Your task to perform on an android device: Show me the alarms in the clock app Image 0: 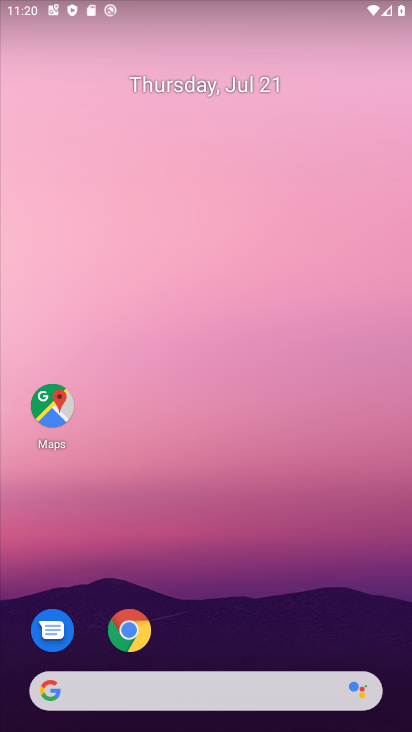
Step 0: press home button
Your task to perform on an android device: Show me the alarms in the clock app Image 1: 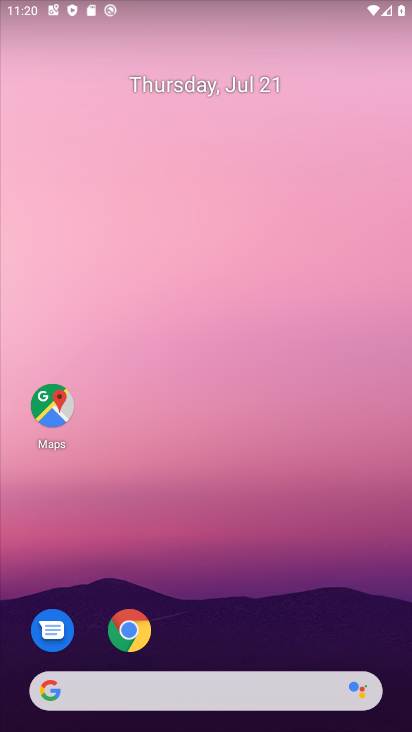
Step 1: drag from (197, 666) to (175, 146)
Your task to perform on an android device: Show me the alarms in the clock app Image 2: 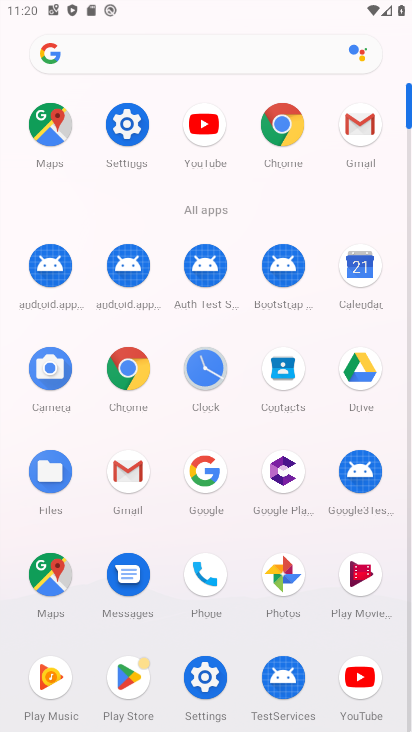
Step 2: click (197, 372)
Your task to perform on an android device: Show me the alarms in the clock app Image 3: 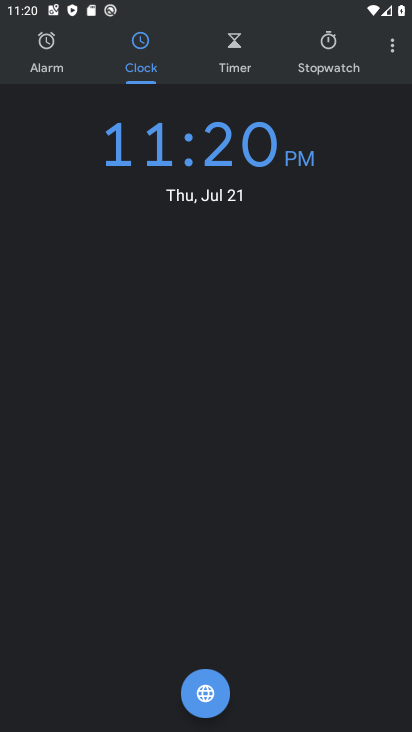
Step 3: click (392, 55)
Your task to perform on an android device: Show me the alarms in the clock app Image 4: 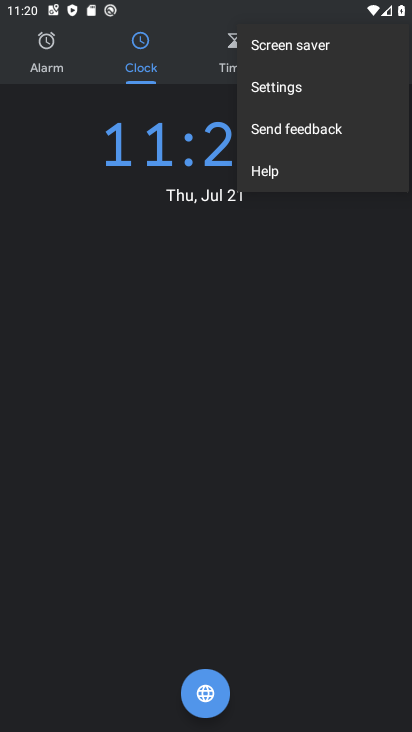
Step 4: click (333, 416)
Your task to perform on an android device: Show me the alarms in the clock app Image 5: 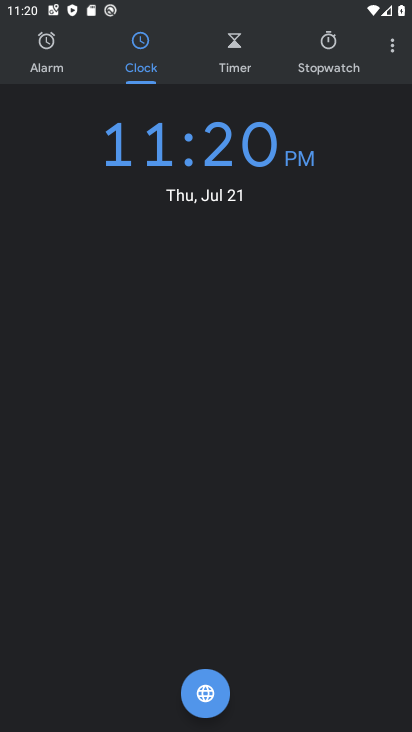
Step 5: click (51, 54)
Your task to perform on an android device: Show me the alarms in the clock app Image 6: 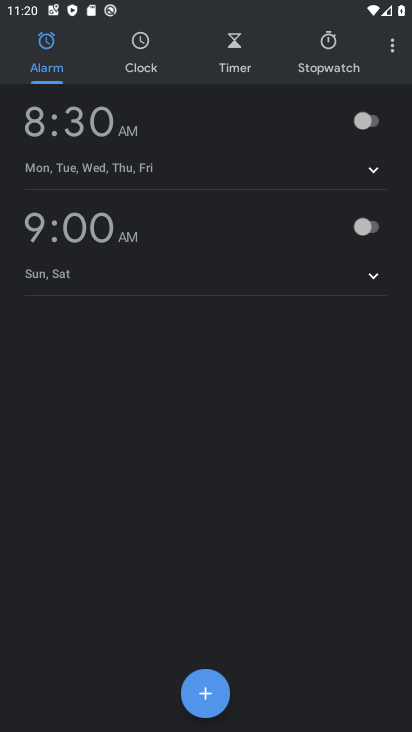
Step 6: click (205, 685)
Your task to perform on an android device: Show me the alarms in the clock app Image 7: 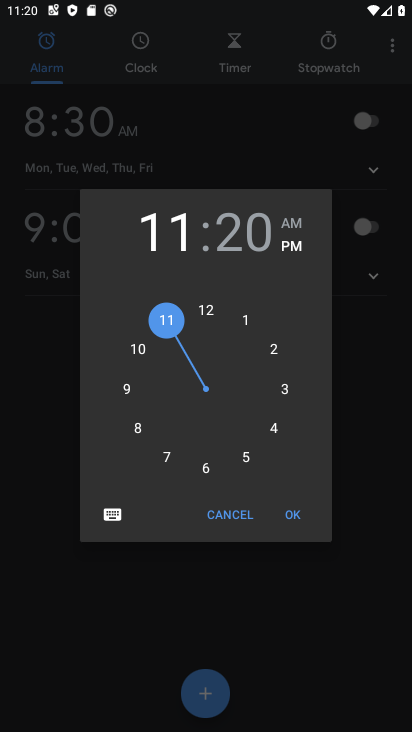
Step 7: click (288, 518)
Your task to perform on an android device: Show me the alarms in the clock app Image 8: 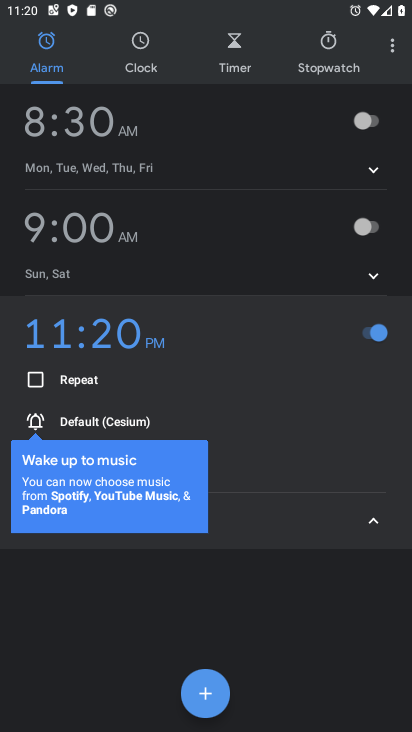
Step 8: task complete